Your task to perform on an android device: Go to Wikipedia Image 0: 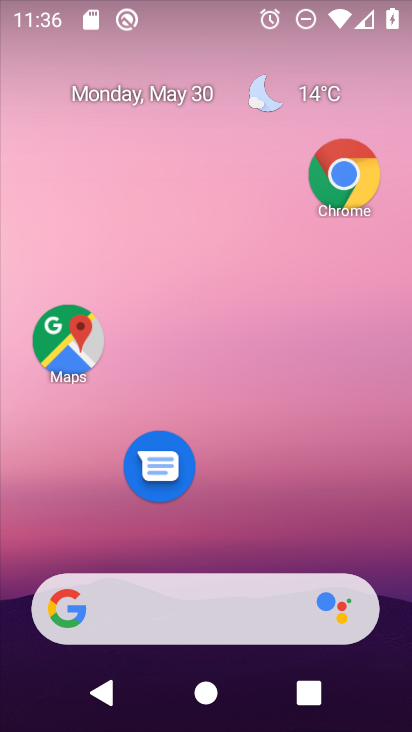
Step 0: click (355, 177)
Your task to perform on an android device: Go to Wikipedia Image 1: 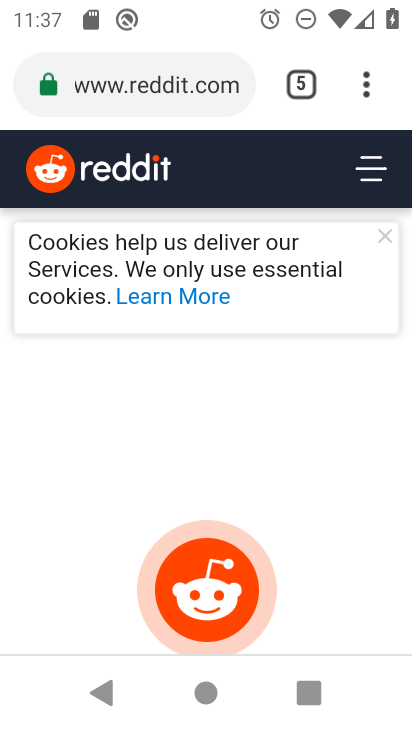
Step 1: click (324, 79)
Your task to perform on an android device: Go to Wikipedia Image 2: 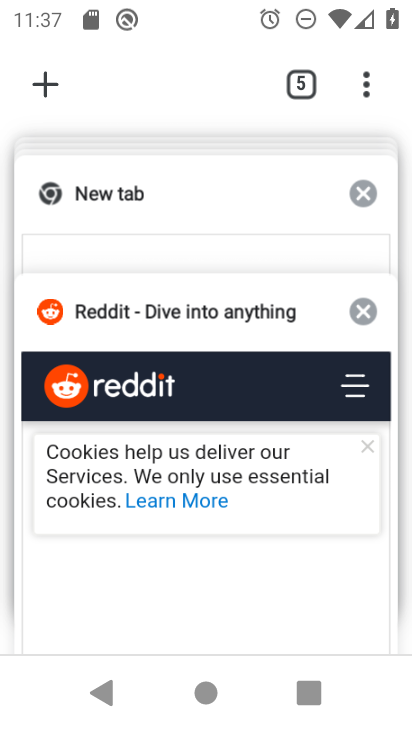
Step 2: drag from (189, 193) to (251, 570)
Your task to perform on an android device: Go to Wikipedia Image 3: 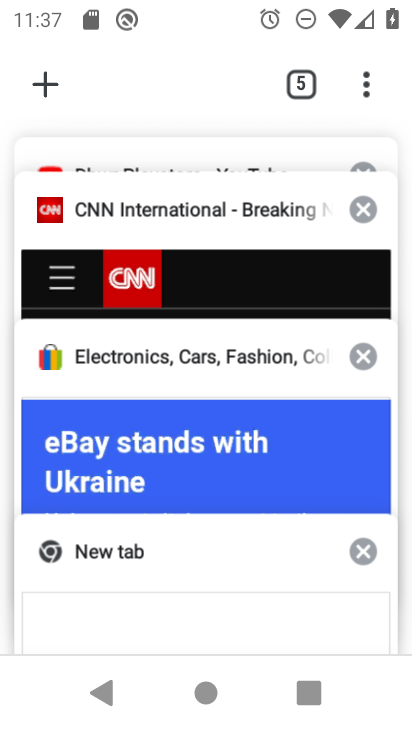
Step 3: drag from (153, 263) to (192, 582)
Your task to perform on an android device: Go to Wikipedia Image 4: 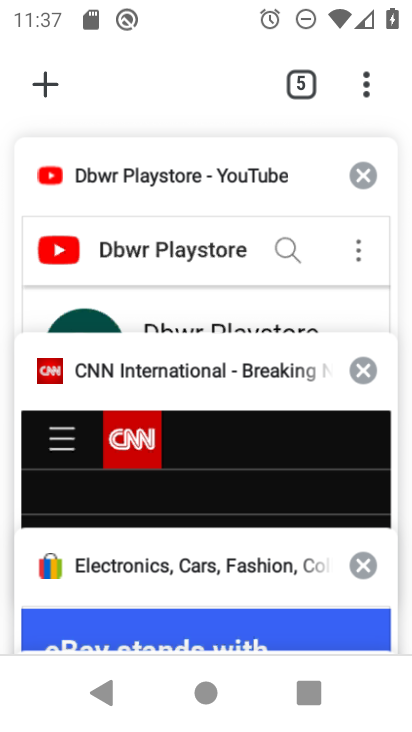
Step 4: drag from (219, 176) to (260, 532)
Your task to perform on an android device: Go to Wikipedia Image 5: 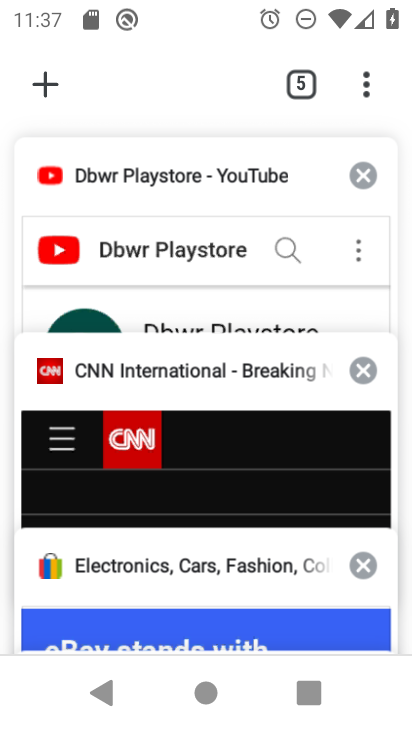
Step 5: drag from (260, 532) to (235, 268)
Your task to perform on an android device: Go to Wikipedia Image 6: 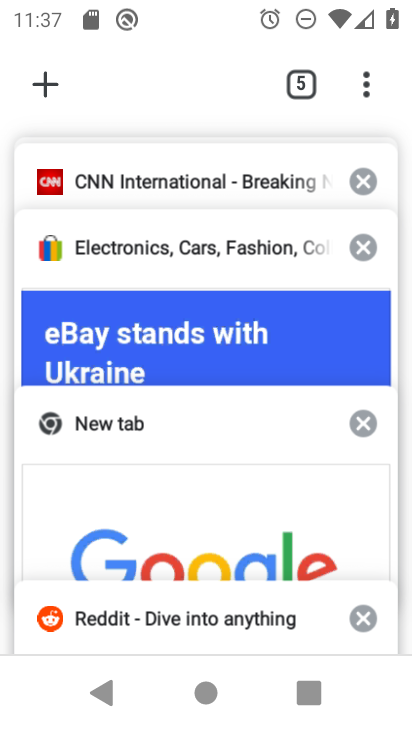
Step 6: drag from (197, 559) to (200, 414)
Your task to perform on an android device: Go to Wikipedia Image 7: 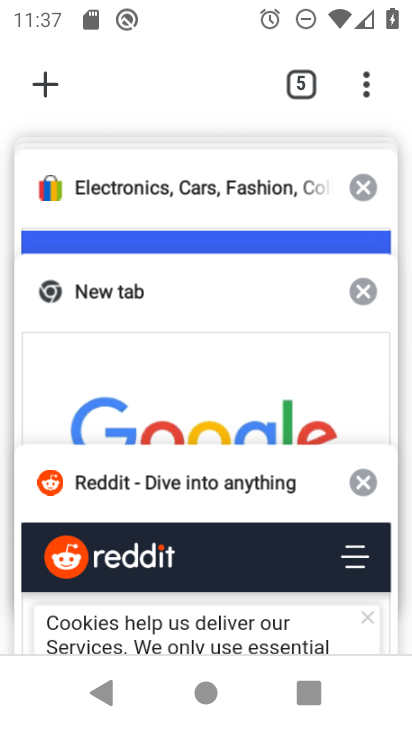
Step 7: click (217, 346)
Your task to perform on an android device: Go to Wikipedia Image 8: 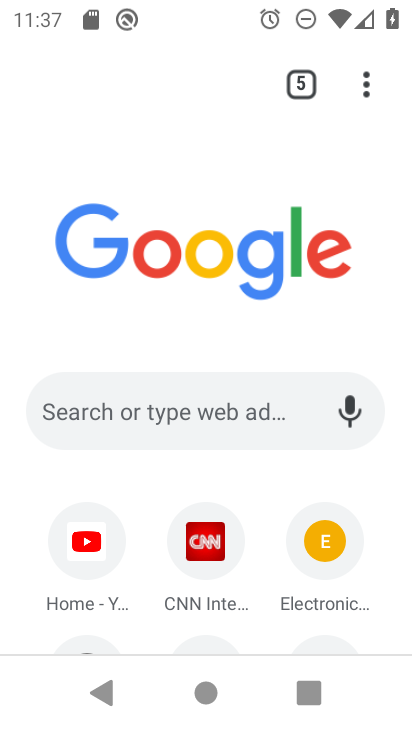
Step 8: drag from (275, 612) to (253, 268)
Your task to perform on an android device: Go to Wikipedia Image 9: 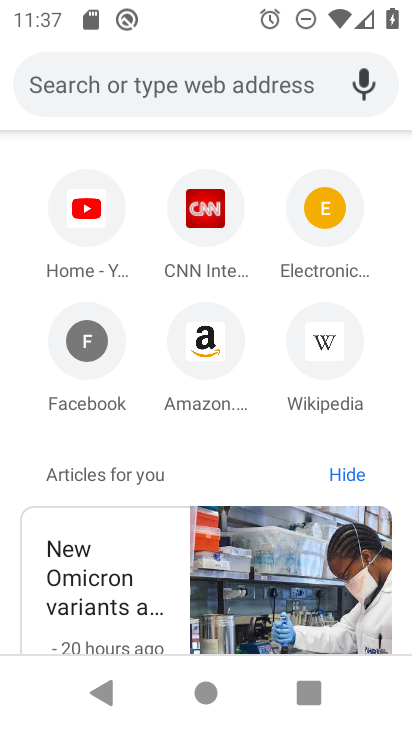
Step 9: click (355, 345)
Your task to perform on an android device: Go to Wikipedia Image 10: 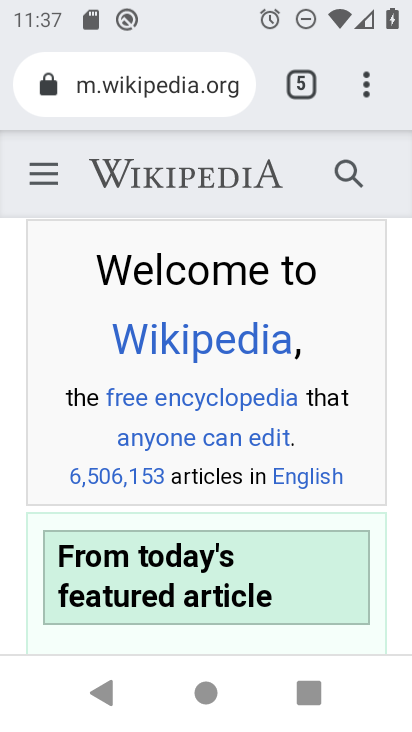
Step 10: task complete